Your task to perform on an android device: open chrome and create a bookmark for the current page Image 0: 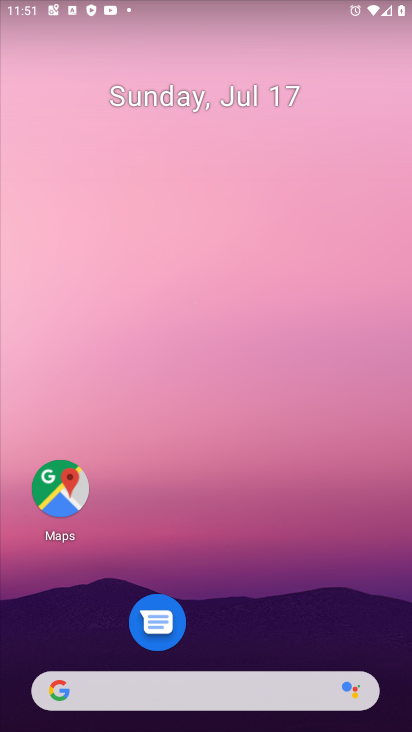
Step 0: drag from (229, 672) to (323, 55)
Your task to perform on an android device: open chrome and create a bookmark for the current page Image 1: 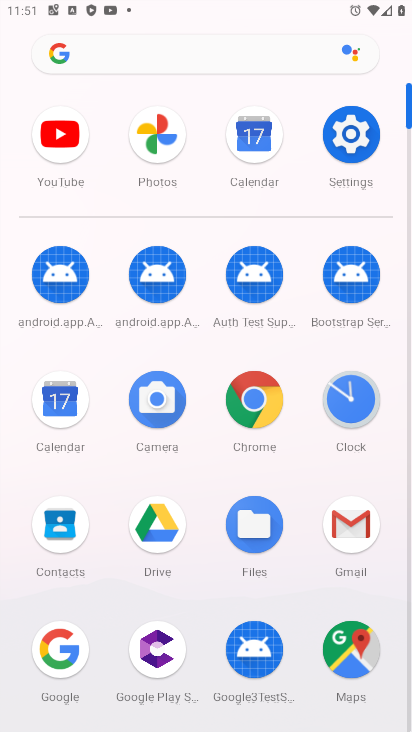
Step 1: click (233, 400)
Your task to perform on an android device: open chrome and create a bookmark for the current page Image 2: 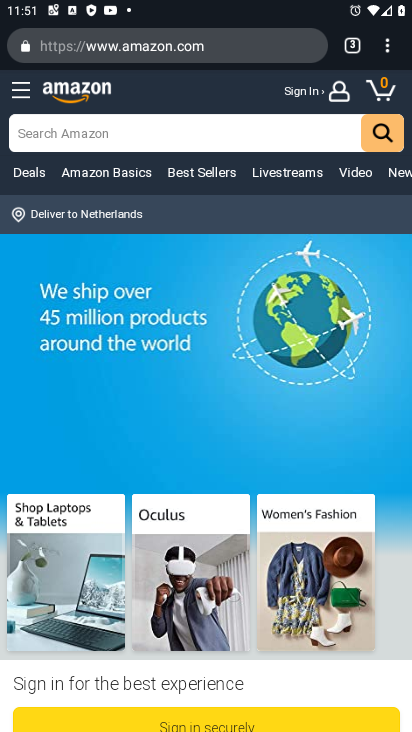
Step 2: click (382, 39)
Your task to perform on an android device: open chrome and create a bookmark for the current page Image 3: 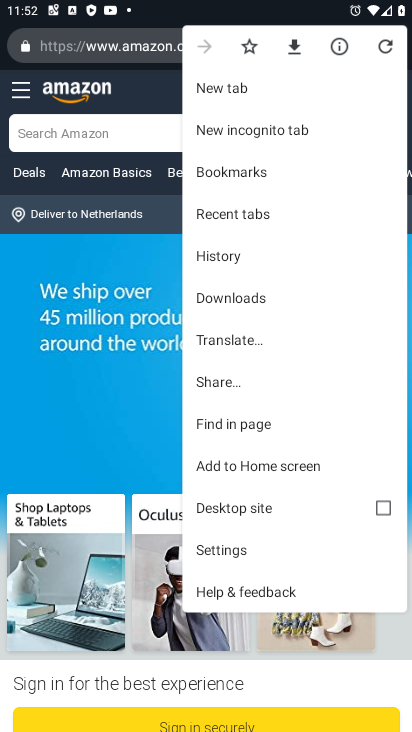
Step 3: click (248, 49)
Your task to perform on an android device: open chrome and create a bookmark for the current page Image 4: 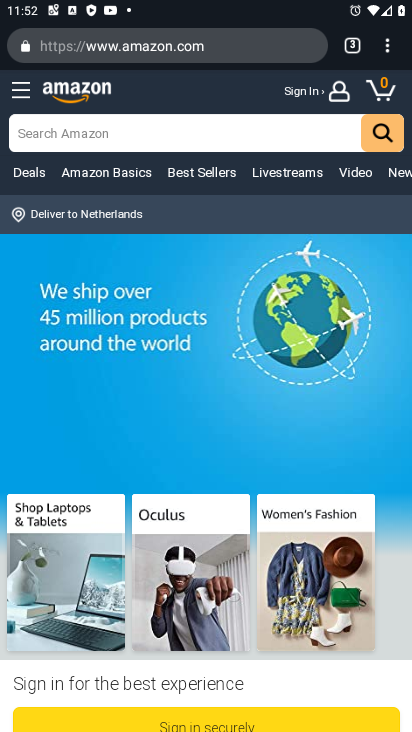
Step 4: task complete